Your task to perform on an android device: Add "usb-c to usb-b" to the cart on target, then select checkout. Image 0: 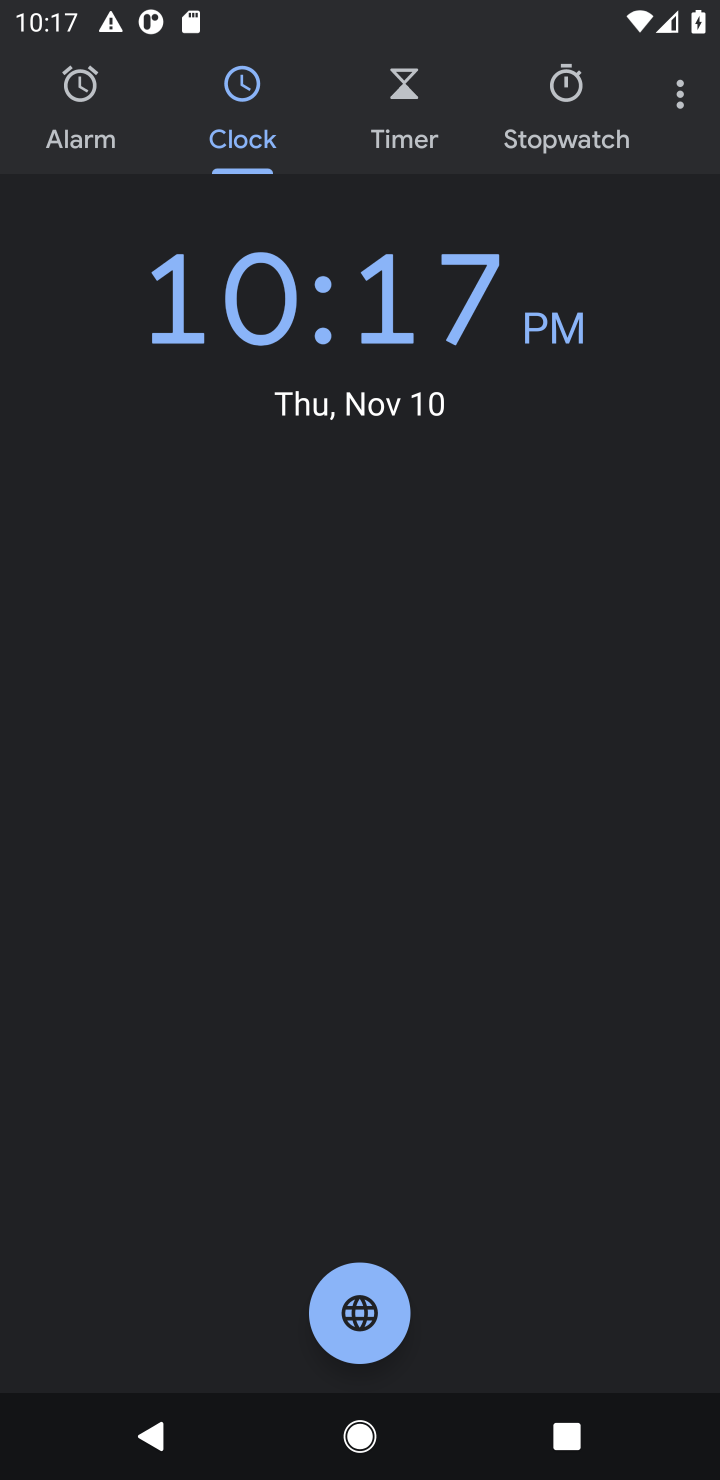
Step 0: press home button
Your task to perform on an android device: Add "usb-c to usb-b" to the cart on target, then select checkout. Image 1: 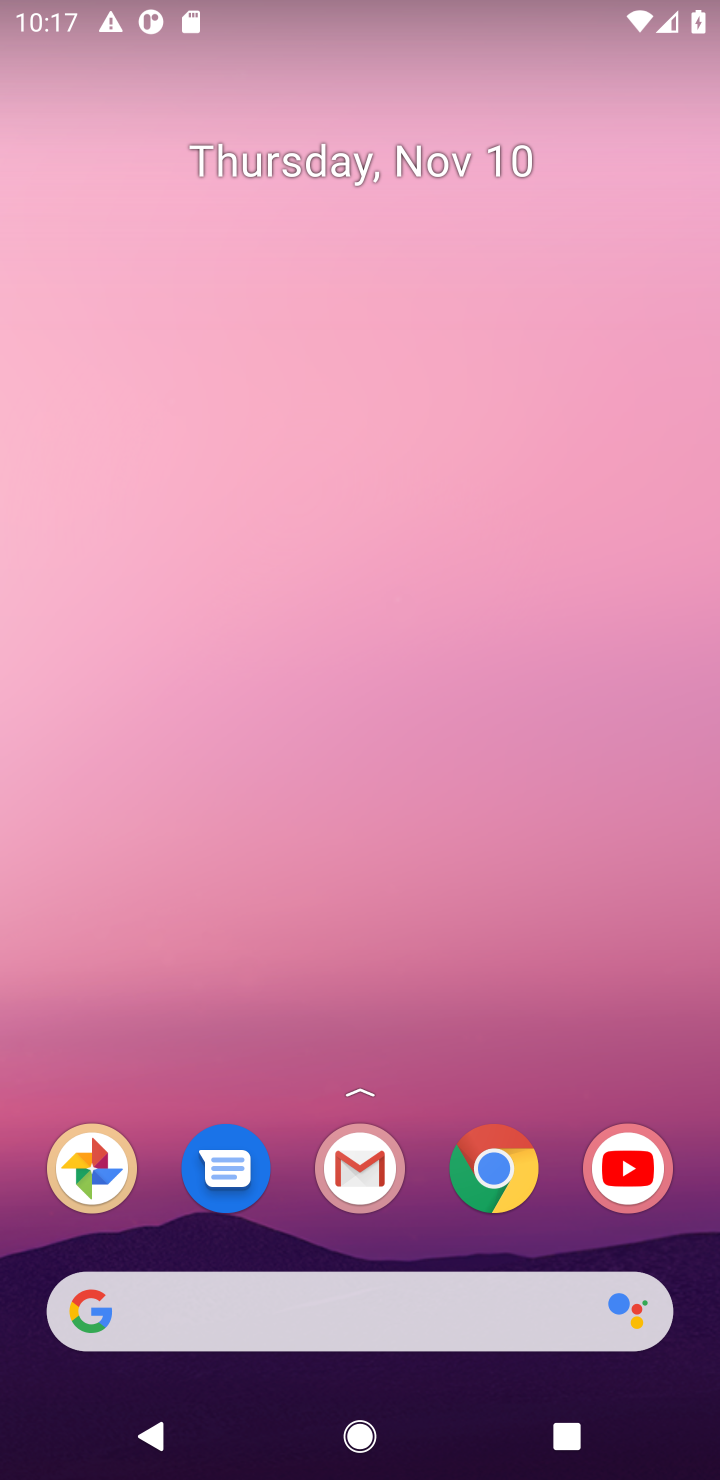
Step 1: click (501, 1154)
Your task to perform on an android device: Add "usb-c to usb-b" to the cart on target, then select checkout. Image 2: 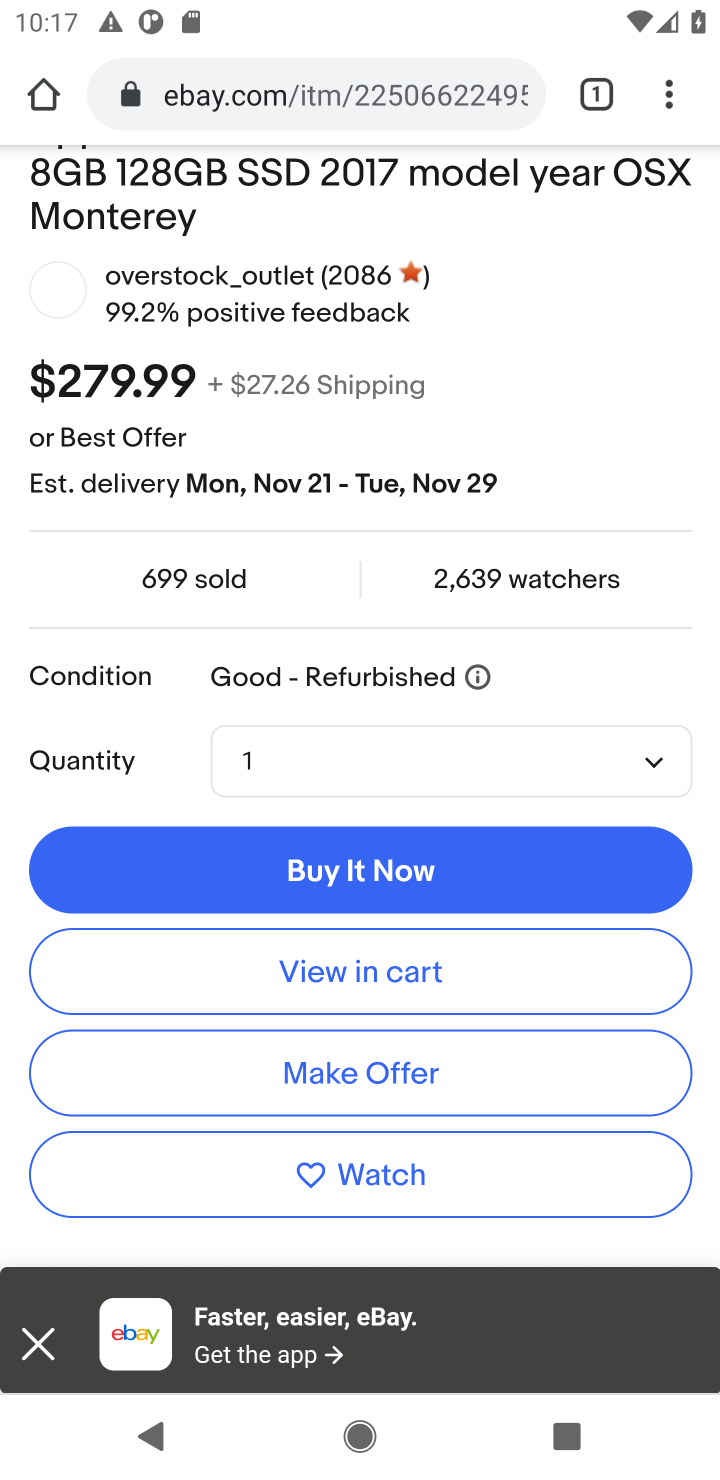
Step 2: click (305, 99)
Your task to perform on an android device: Add "usb-c to usb-b" to the cart on target, then select checkout. Image 3: 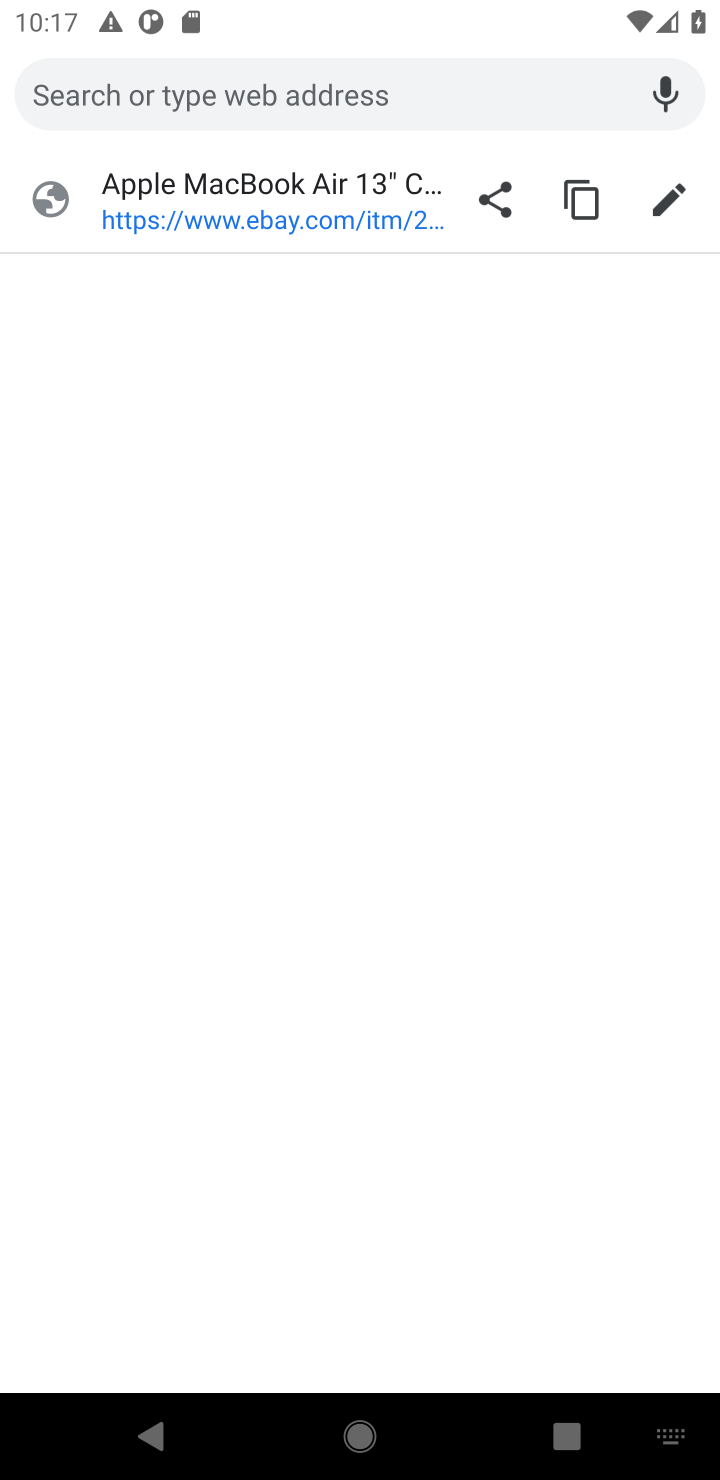
Step 3: type "target.com"
Your task to perform on an android device: Add "usb-c to usb-b" to the cart on target, then select checkout. Image 4: 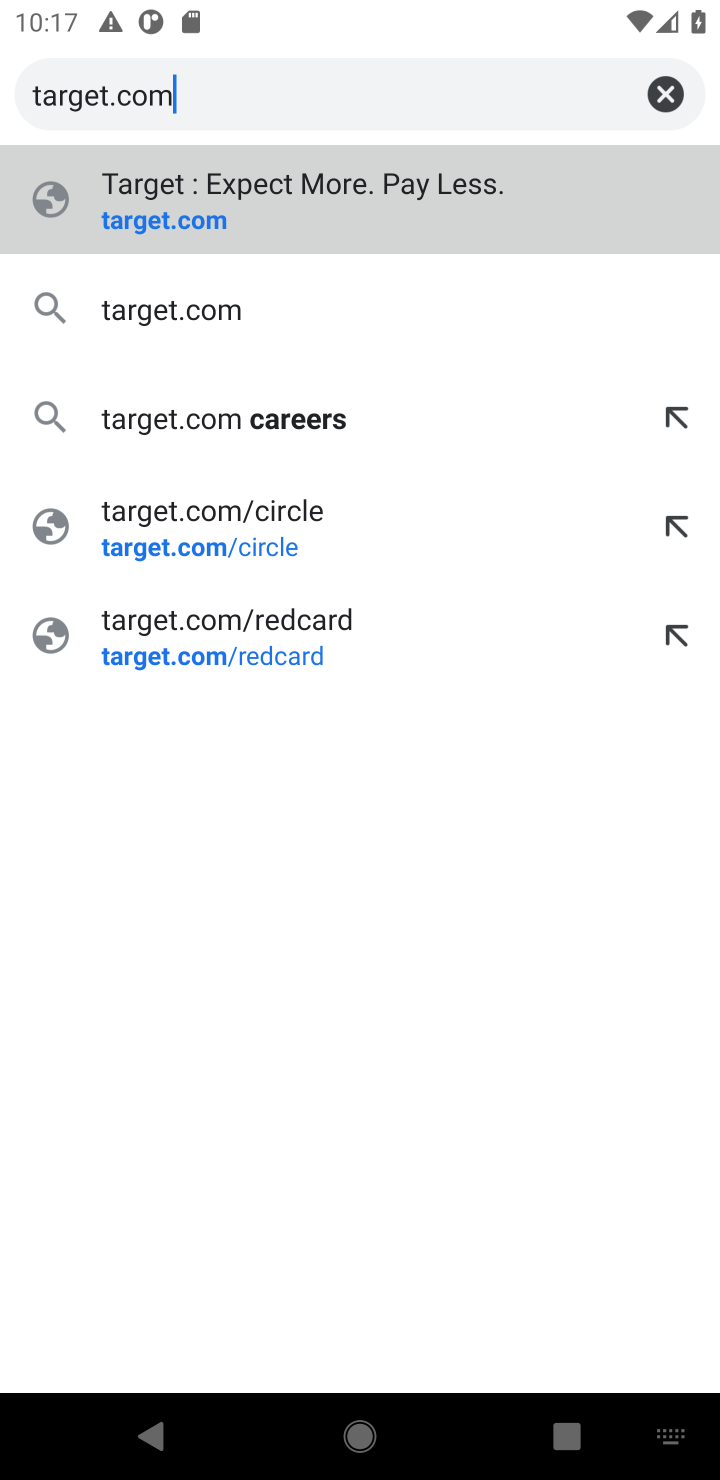
Step 4: click (174, 233)
Your task to perform on an android device: Add "usb-c to usb-b" to the cart on target, then select checkout. Image 5: 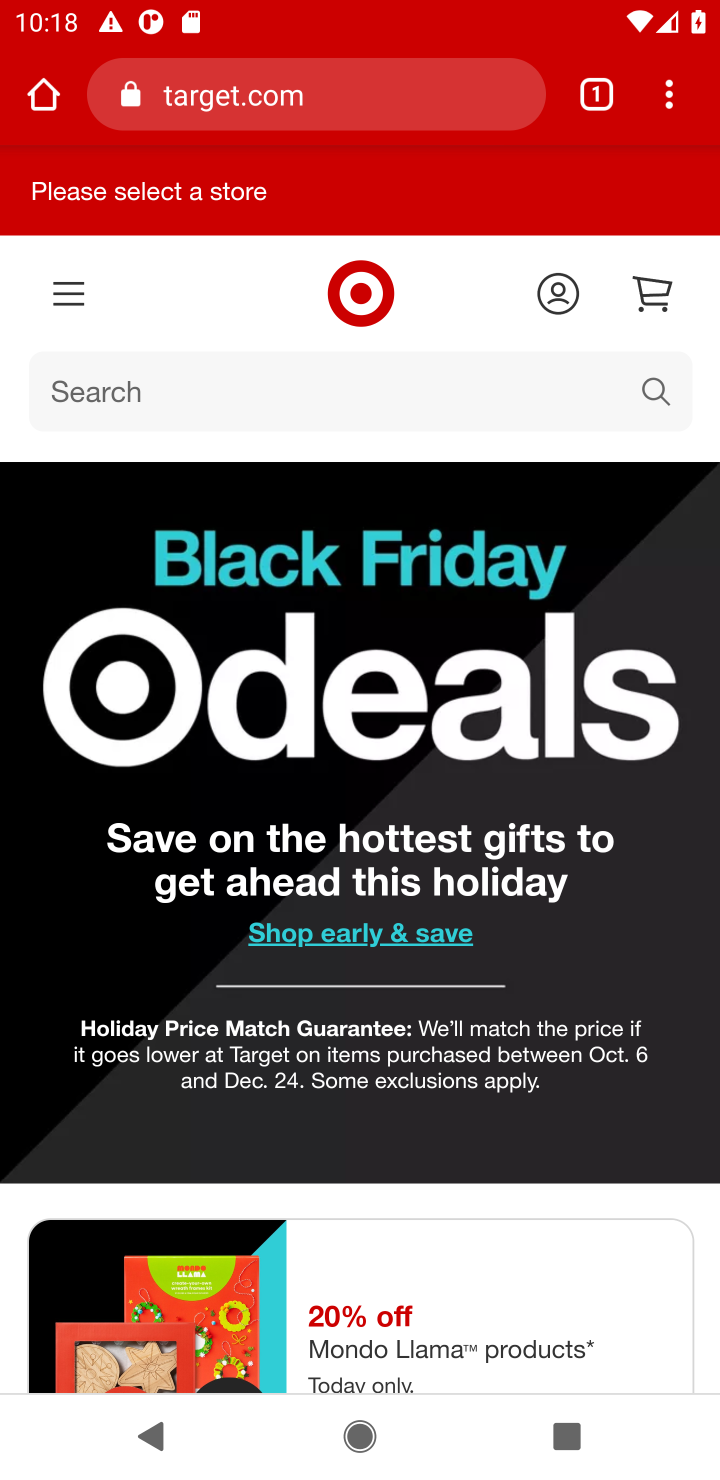
Step 5: click (654, 382)
Your task to perform on an android device: Add "usb-c to usb-b" to the cart on target, then select checkout. Image 6: 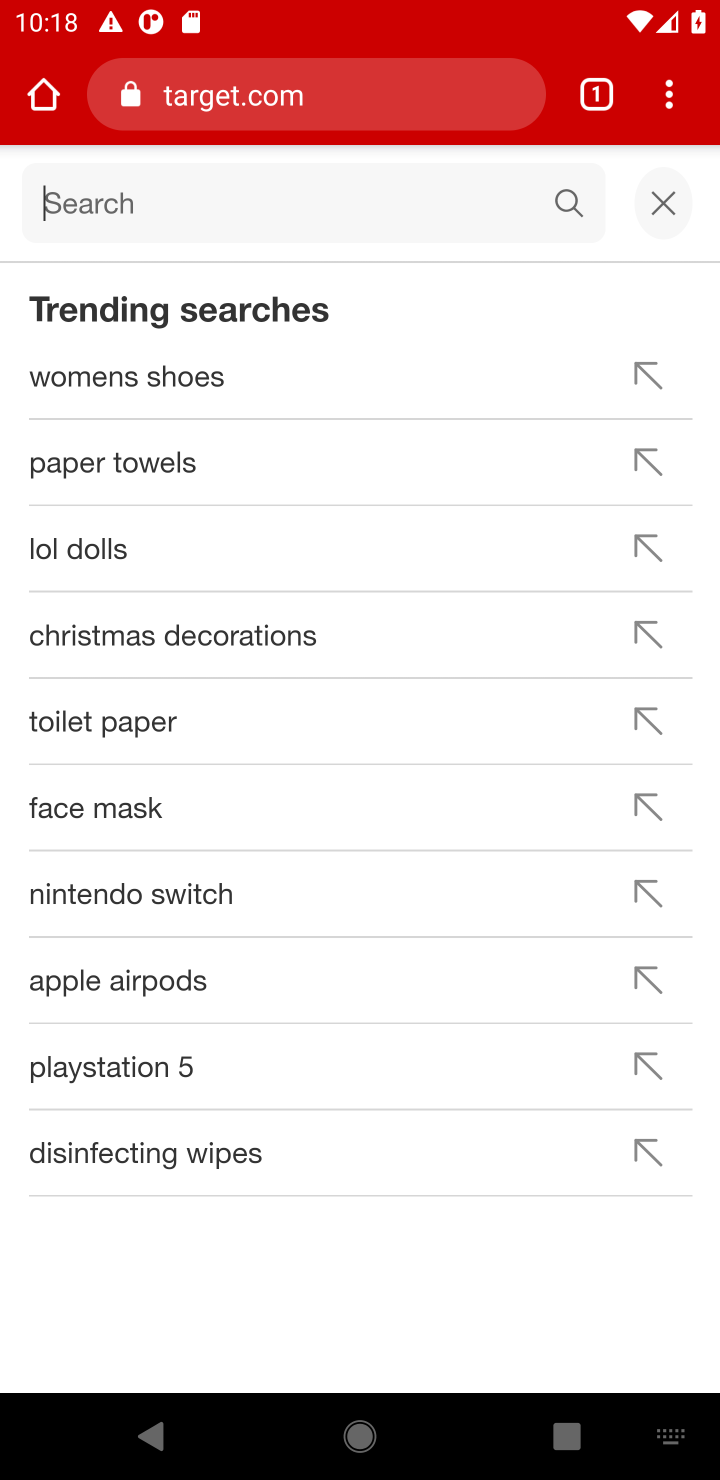
Step 6: type "usb-c to usb-b"
Your task to perform on an android device: Add "usb-c to usb-b" to the cart on target, then select checkout. Image 7: 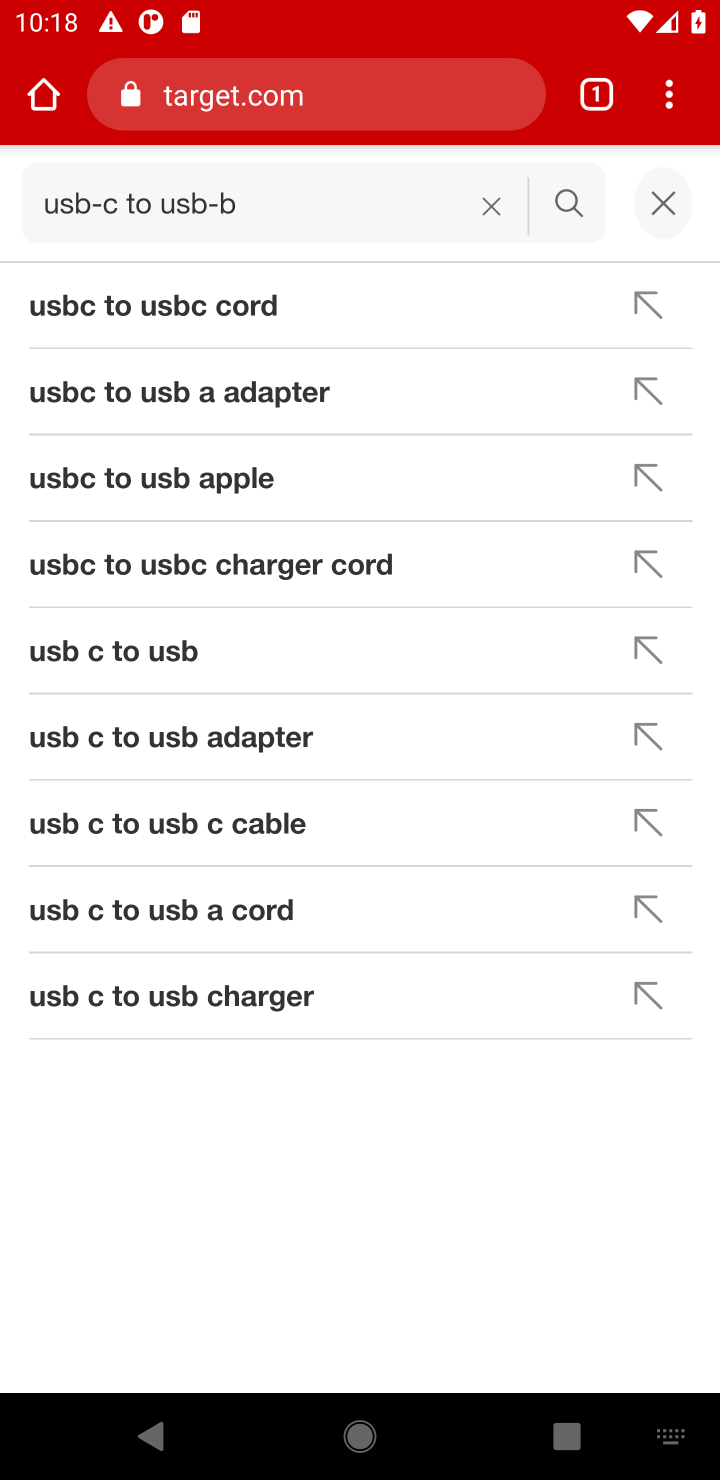
Step 7: click (569, 206)
Your task to perform on an android device: Add "usb-c to usb-b" to the cart on target, then select checkout. Image 8: 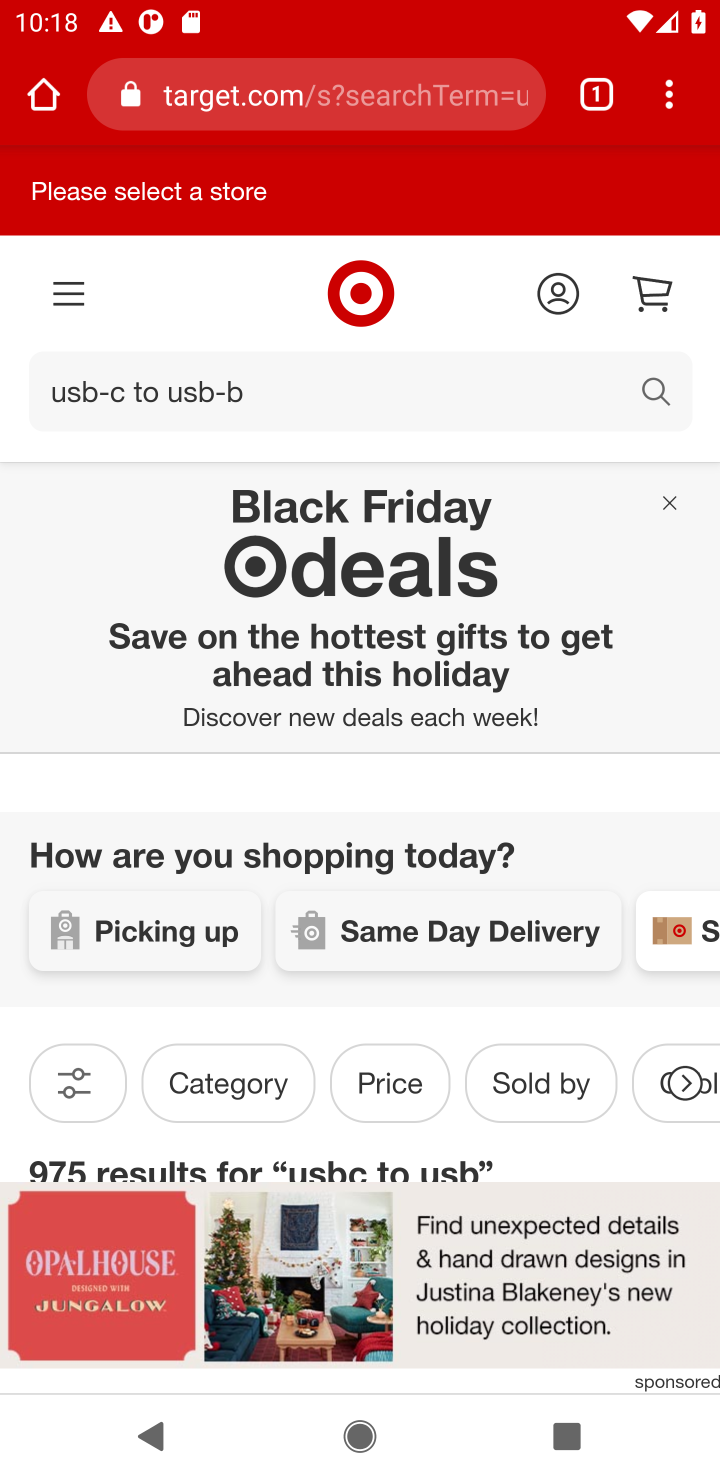
Step 8: drag from (317, 785) to (293, 379)
Your task to perform on an android device: Add "usb-c to usb-b" to the cart on target, then select checkout. Image 9: 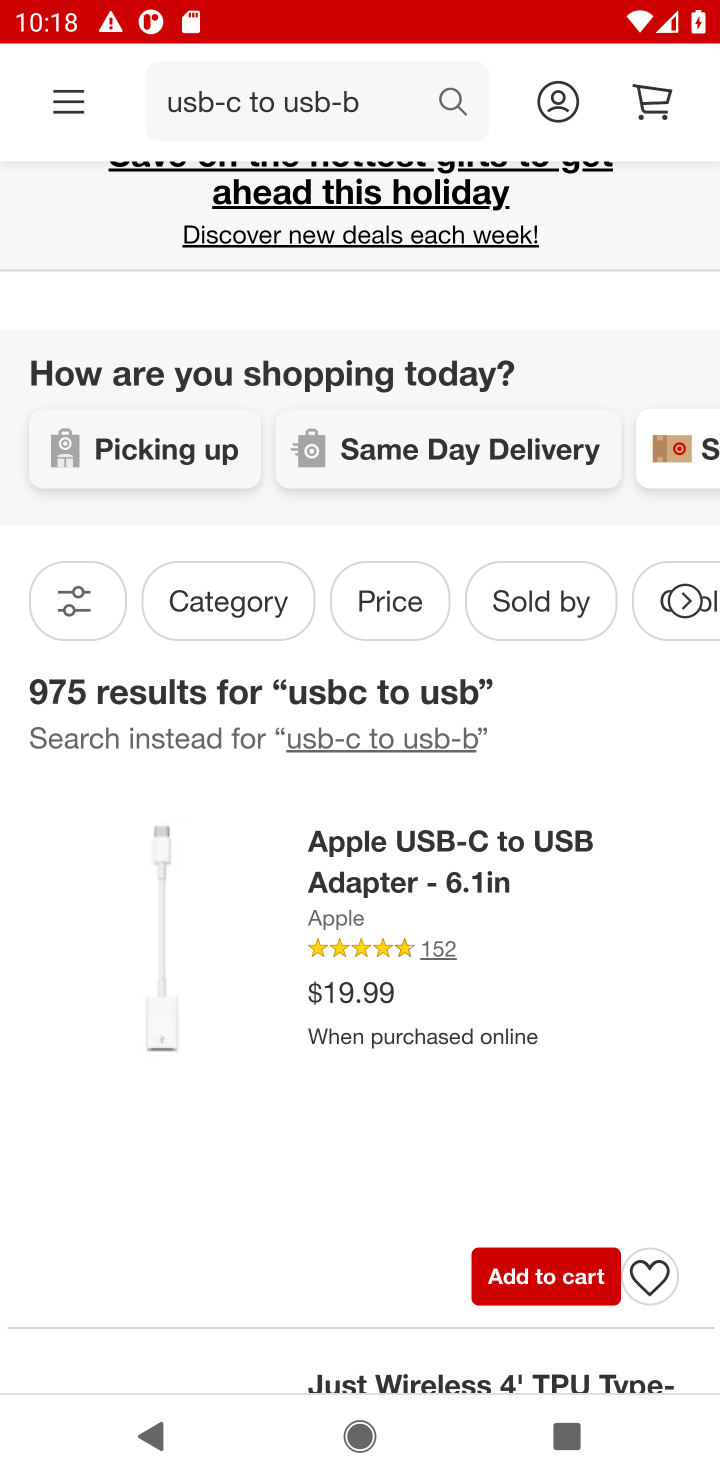
Step 9: drag from (338, 980) to (303, 494)
Your task to perform on an android device: Add "usb-c to usb-b" to the cart on target, then select checkout. Image 10: 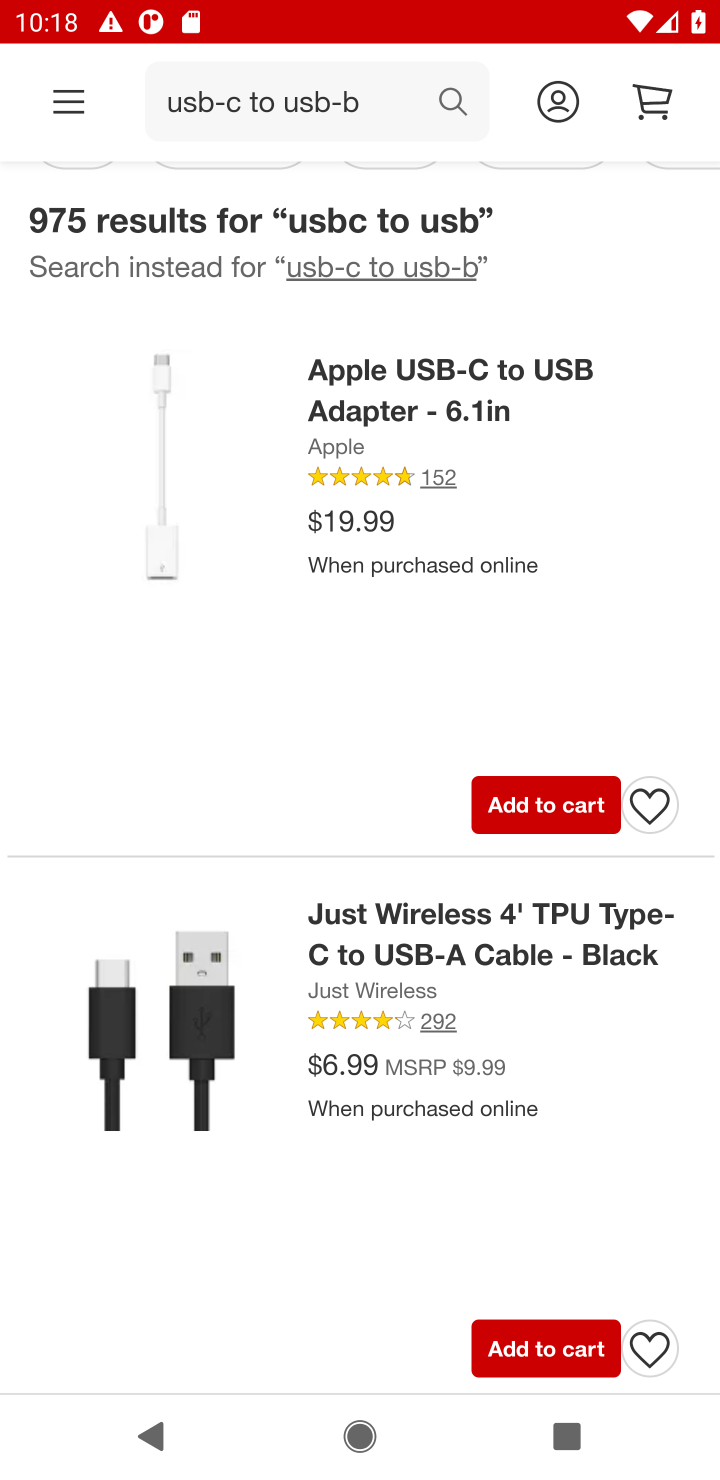
Step 10: click (316, 501)
Your task to perform on an android device: Add "usb-c to usb-b" to the cart on target, then select checkout. Image 11: 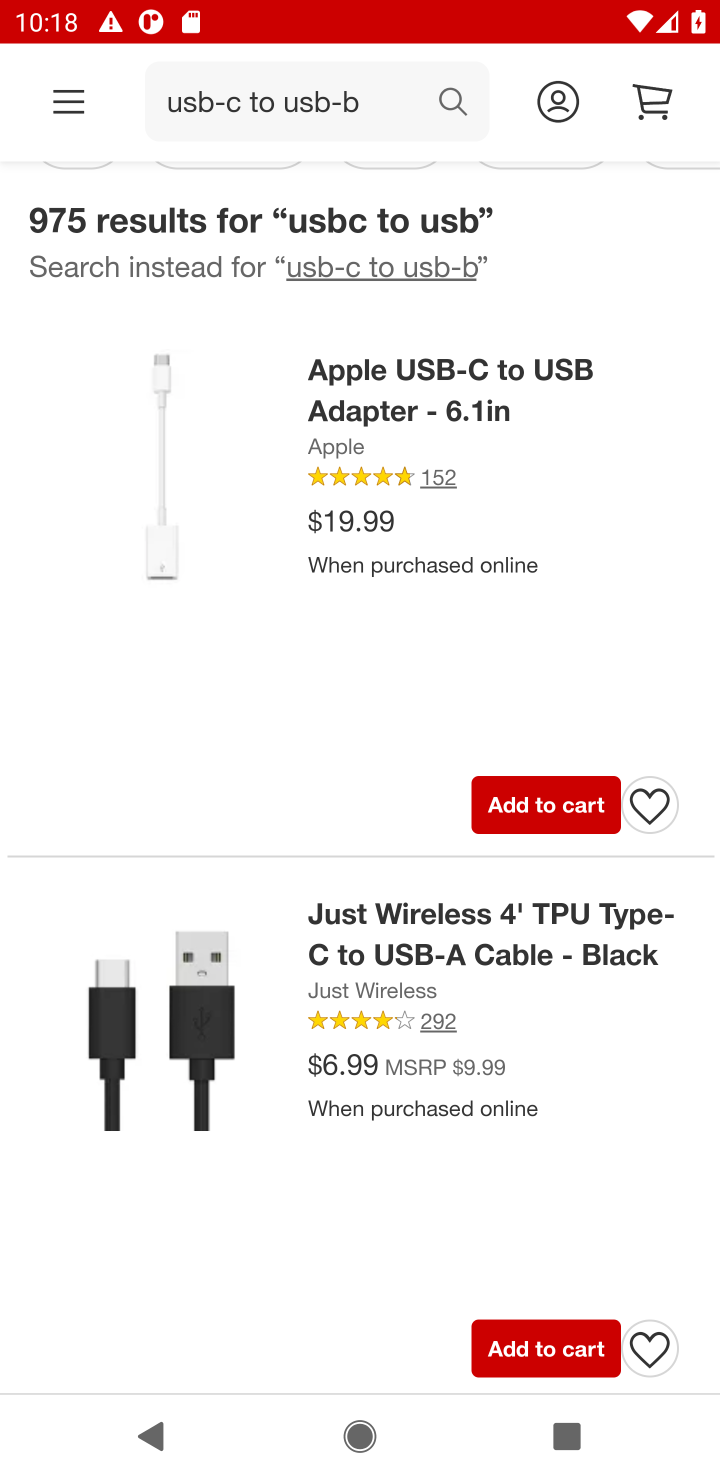
Step 11: drag from (327, 1108) to (291, 552)
Your task to perform on an android device: Add "usb-c to usb-b" to the cart on target, then select checkout. Image 12: 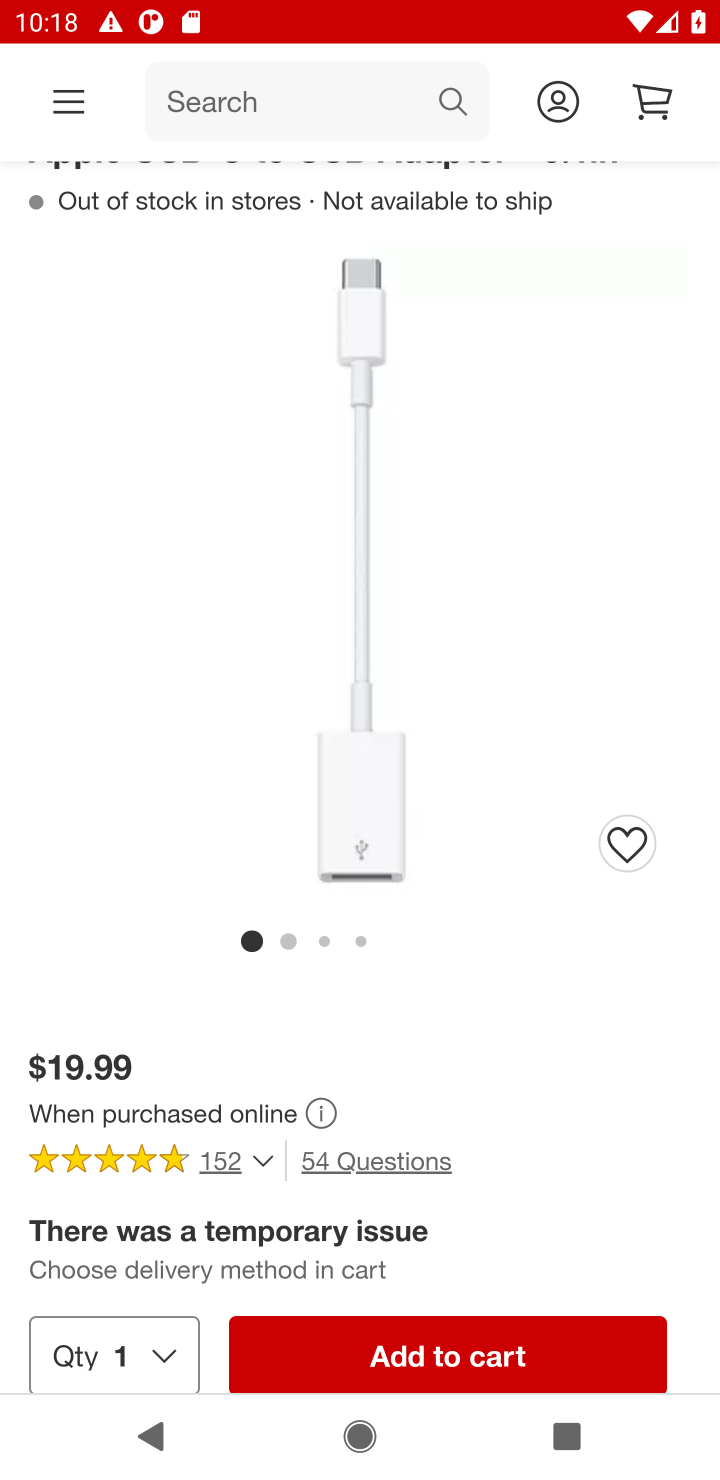
Step 12: press back button
Your task to perform on an android device: Add "usb-c to usb-b" to the cart on target, then select checkout. Image 13: 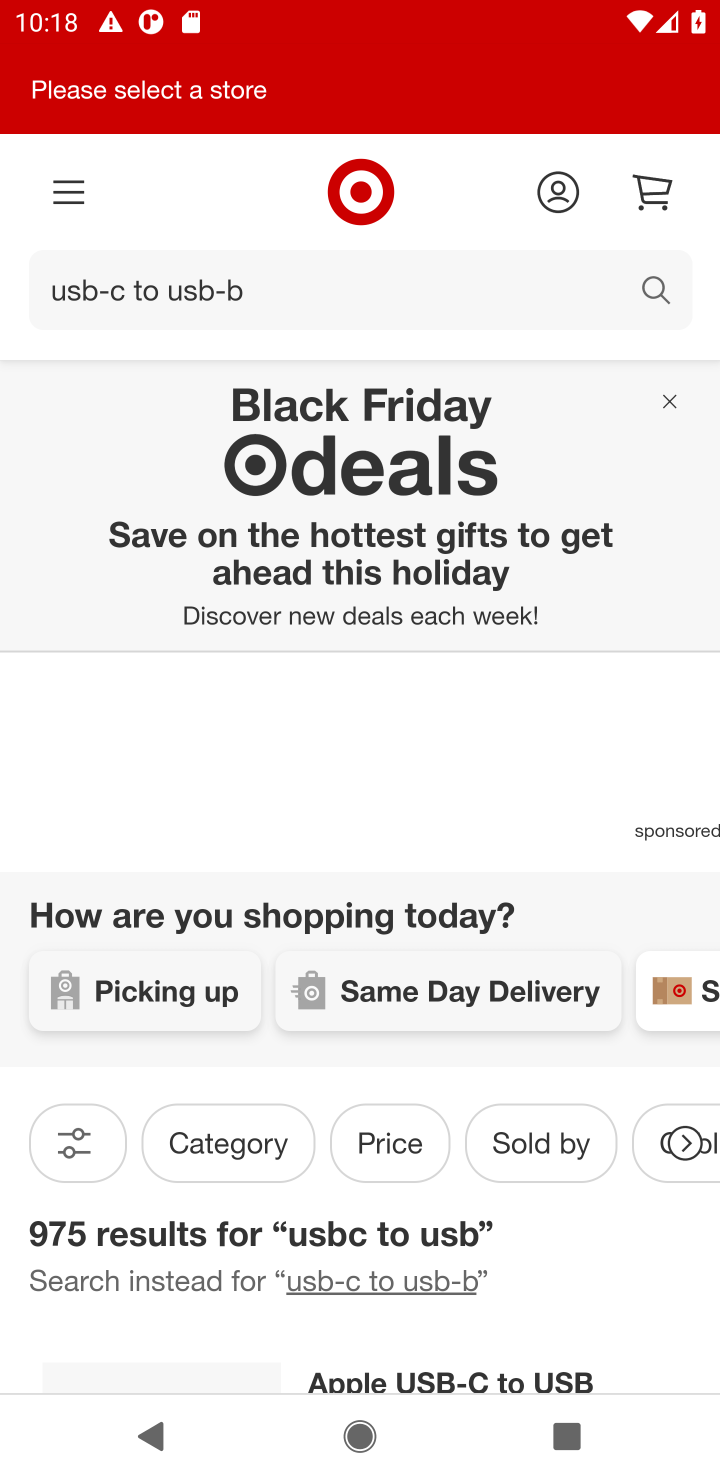
Step 13: drag from (402, 1084) to (338, 500)
Your task to perform on an android device: Add "usb-c to usb-b" to the cart on target, then select checkout. Image 14: 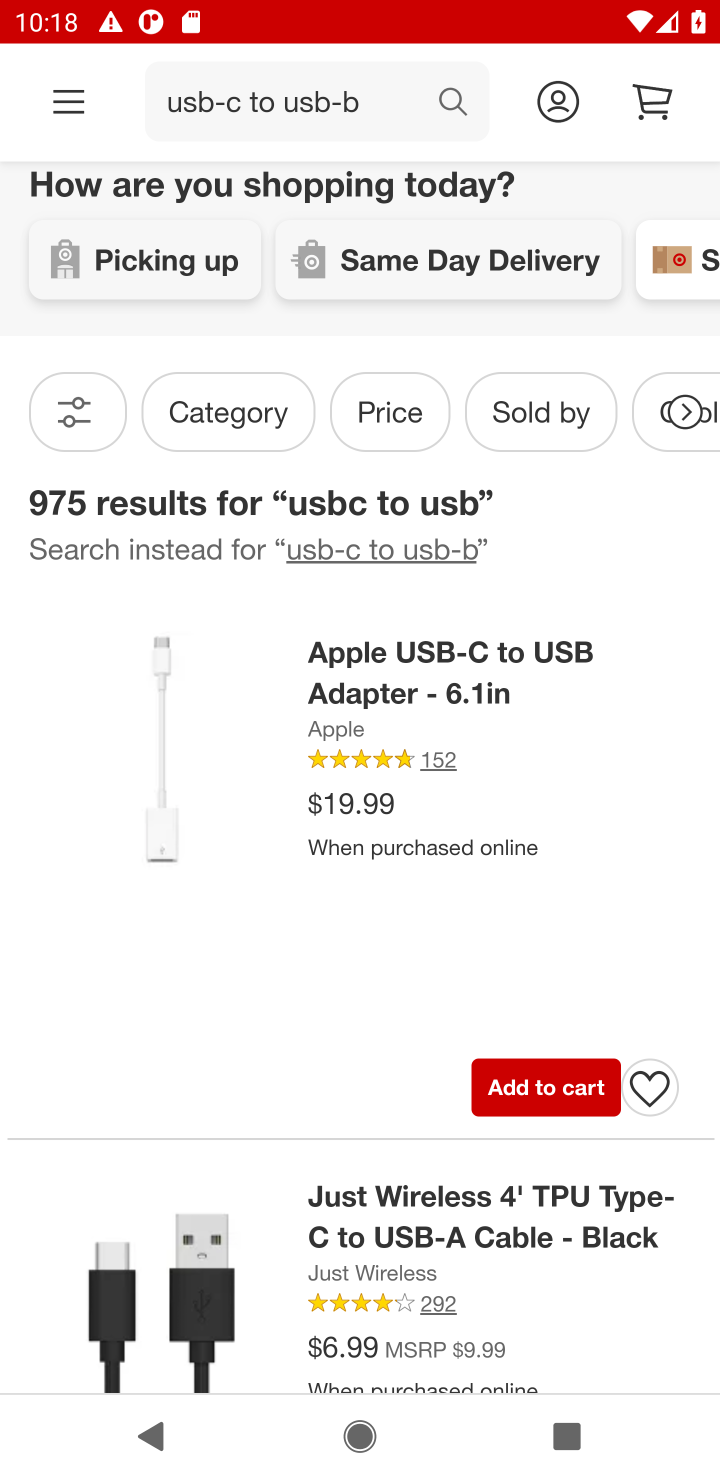
Step 14: drag from (245, 965) to (220, 549)
Your task to perform on an android device: Add "usb-c to usb-b" to the cart on target, then select checkout. Image 15: 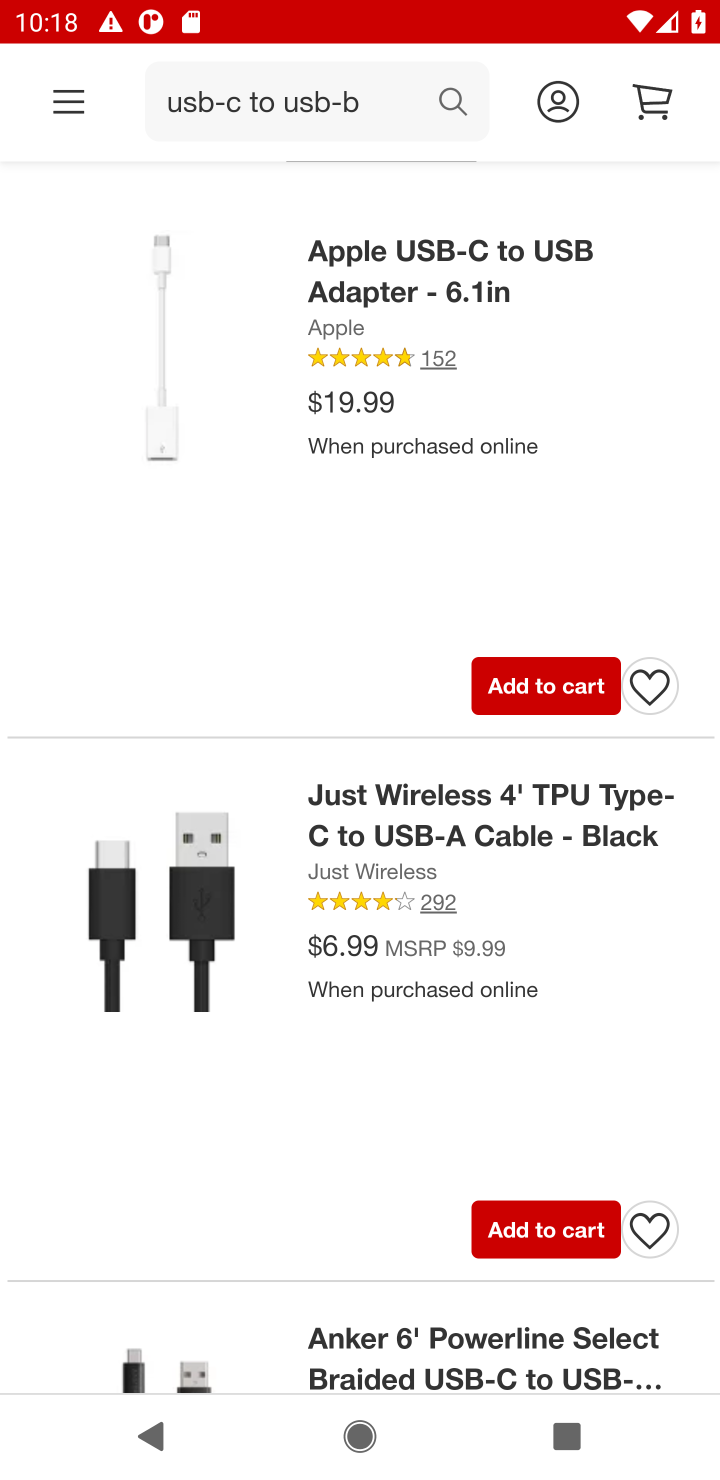
Step 15: drag from (350, 1104) to (334, 498)
Your task to perform on an android device: Add "usb-c to usb-b" to the cart on target, then select checkout. Image 16: 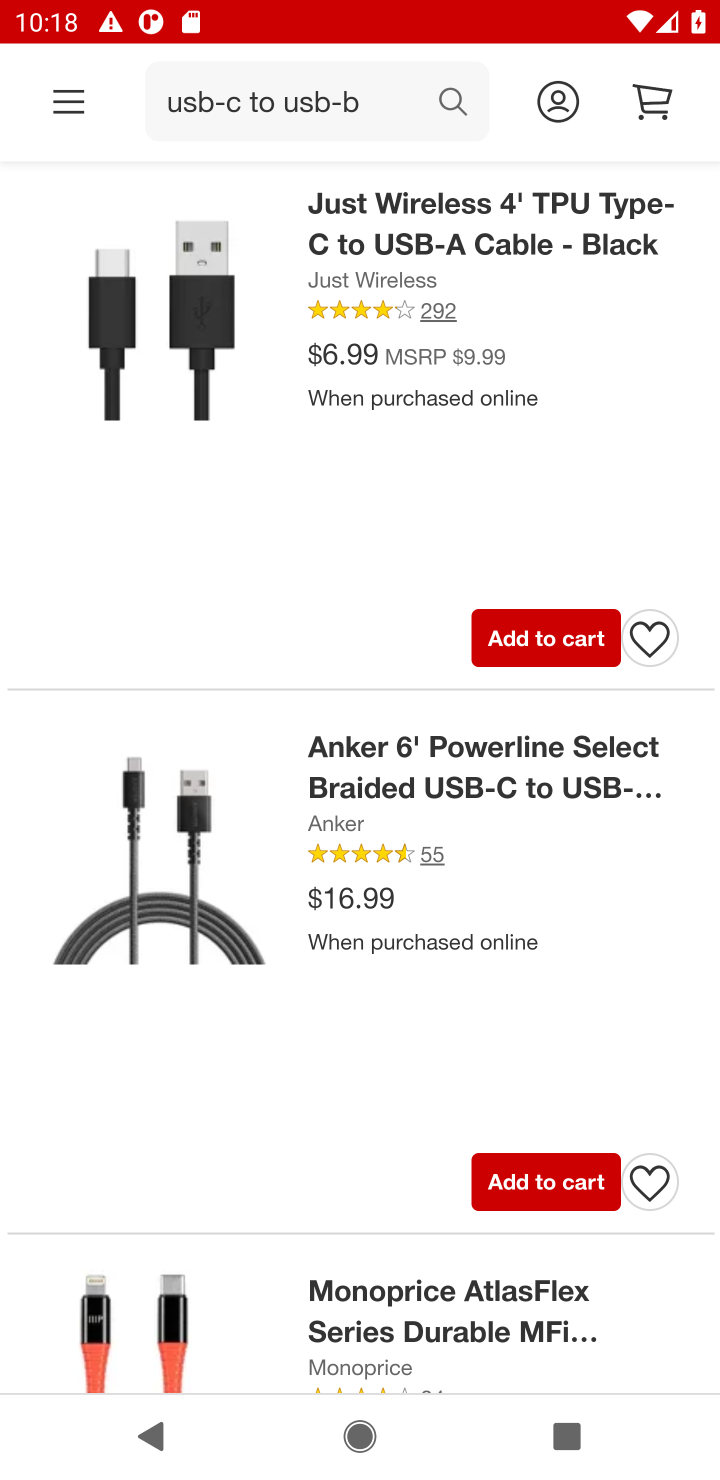
Step 16: click (349, 847)
Your task to perform on an android device: Add "usb-c to usb-b" to the cart on target, then select checkout. Image 17: 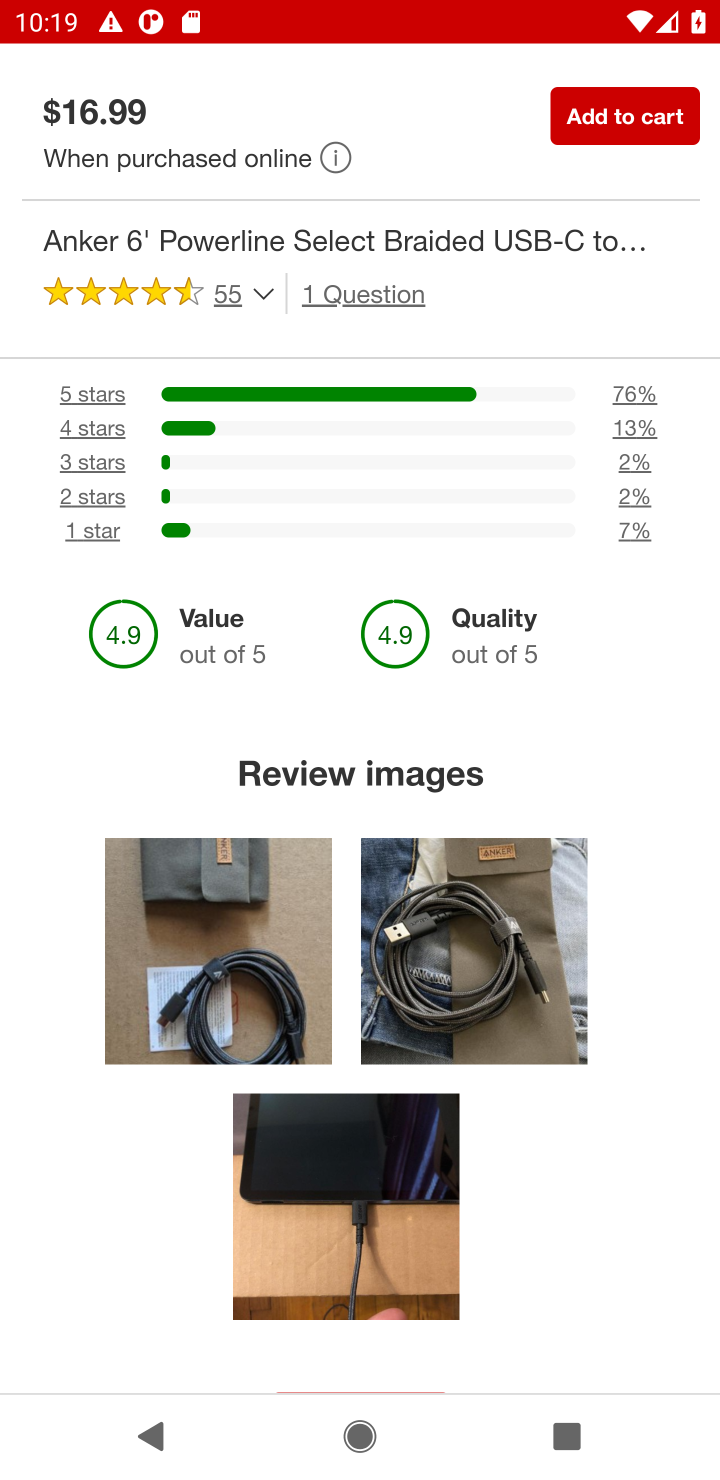
Step 17: press back button
Your task to perform on an android device: Add "usb-c to usb-b" to the cart on target, then select checkout. Image 18: 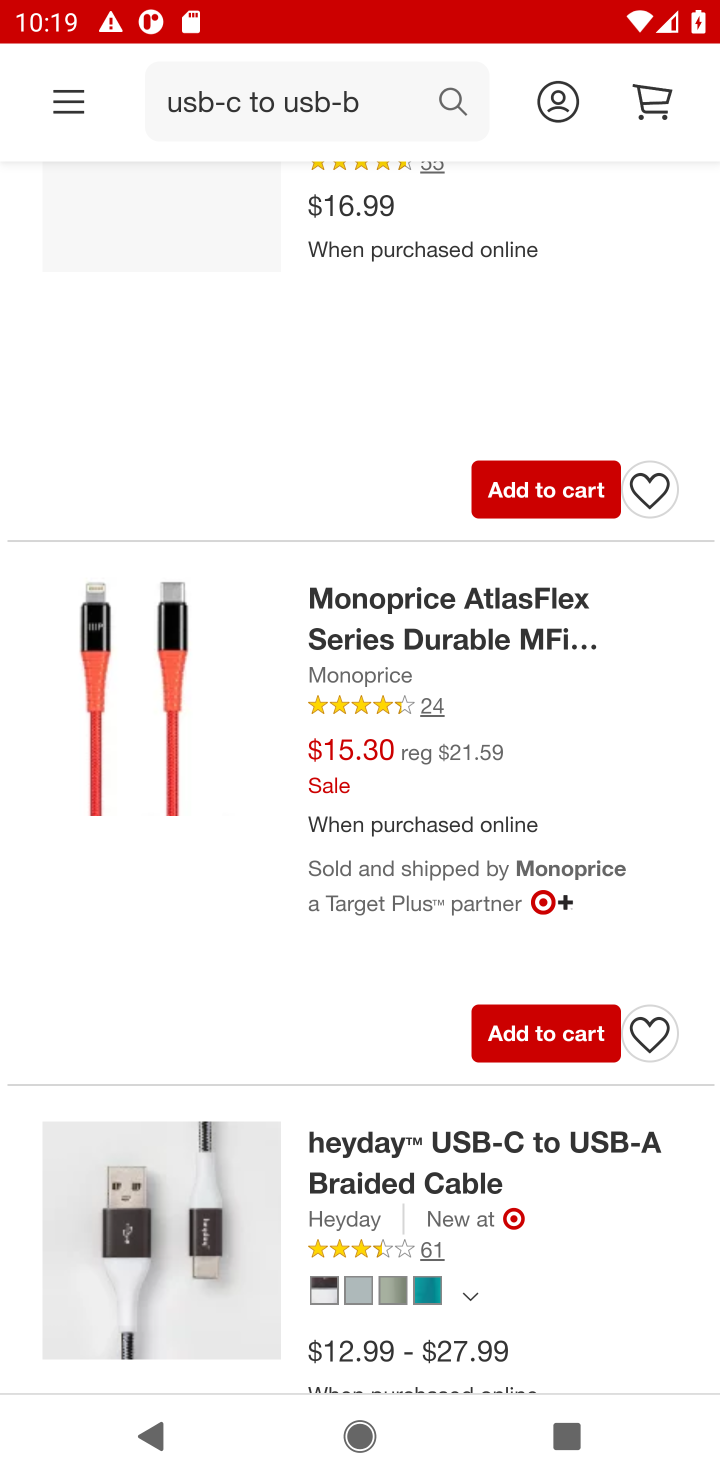
Step 18: drag from (208, 869) to (263, 1219)
Your task to perform on an android device: Add "usb-c to usb-b" to the cart on target, then select checkout. Image 19: 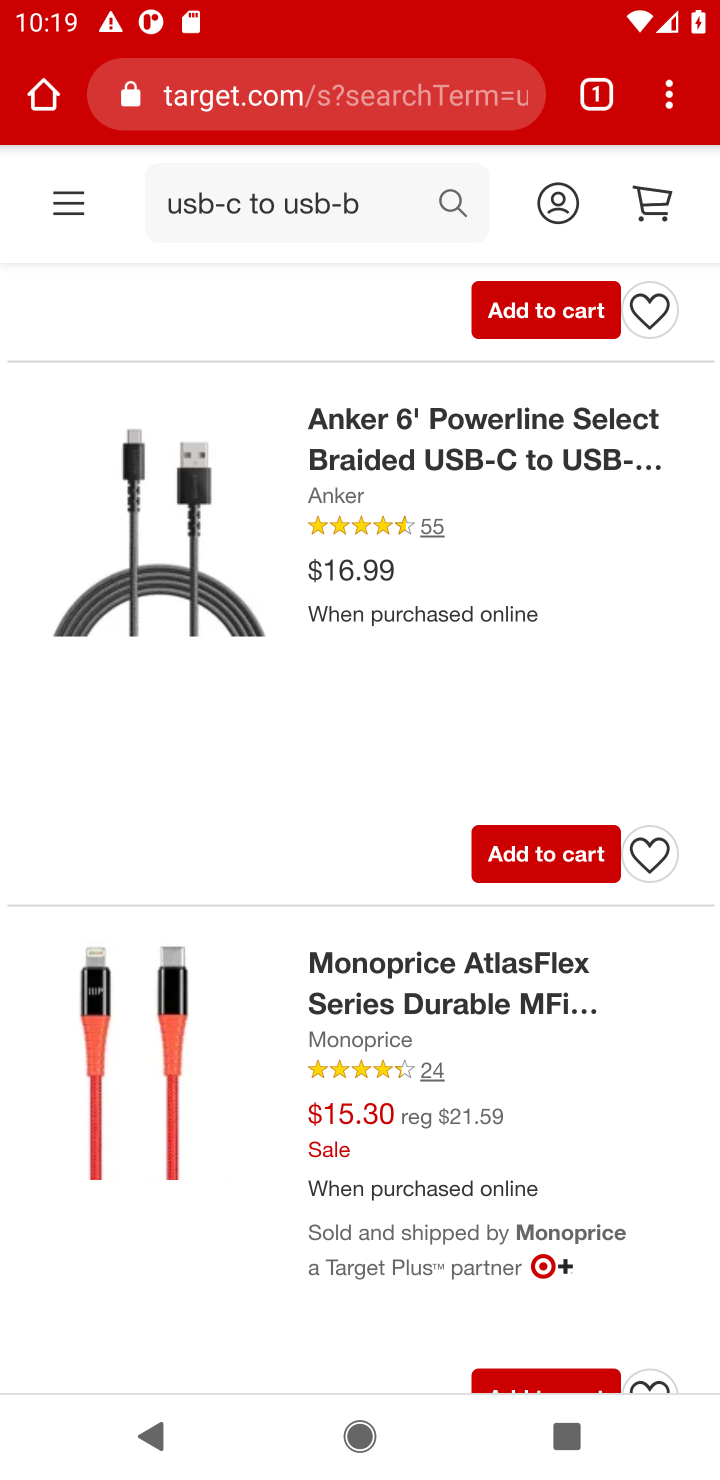
Step 19: click (190, 565)
Your task to perform on an android device: Add "usb-c to usb-b" to the cart on target, then select checkout. Image 20: 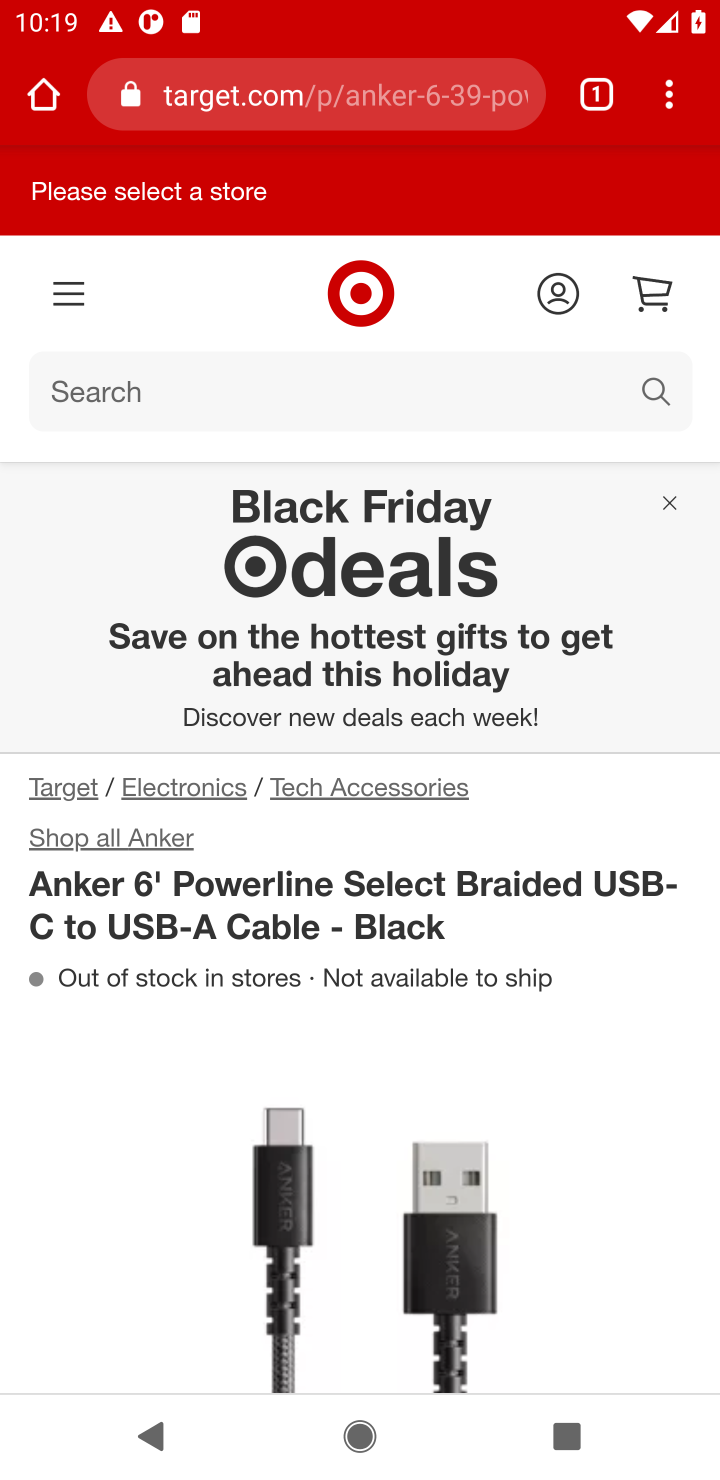
Step 20: task complete